Your task to perform on an android device: Go to display settings Image 0: 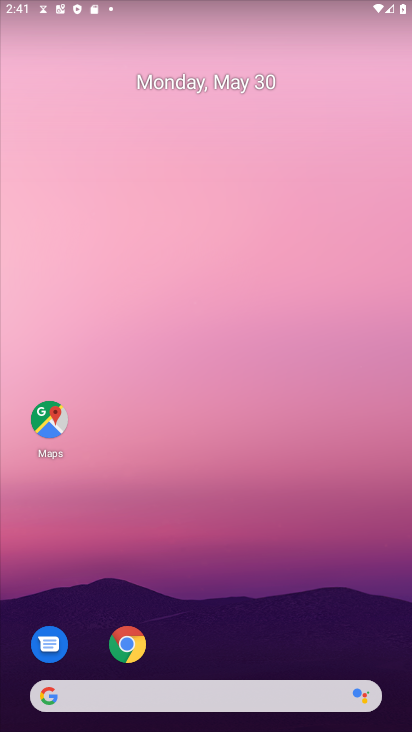
Step 0: drag from (257, 650) to (251, 211)
Your task to perform on an android device: Go to display settings Image 1: 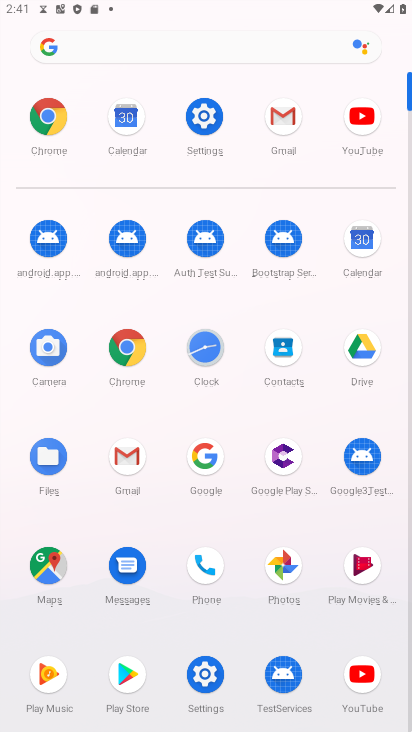
Step 1: click (211, 115)
Your task to perform on an android device: Go to display settings Image 2: 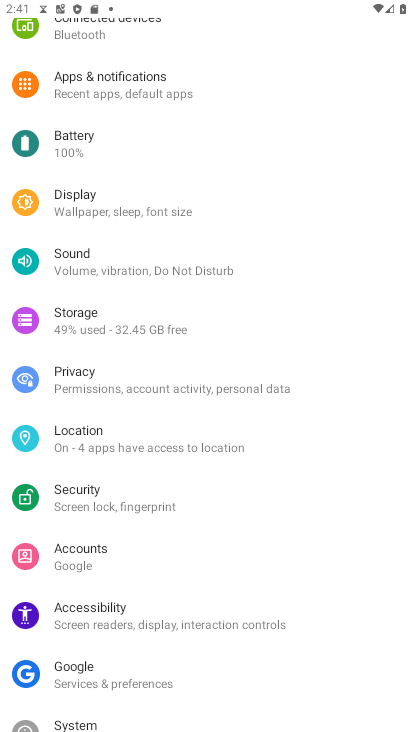
Step 2: click (106, 203)
Your task to perform on an android device: Go to display settings Image 3: 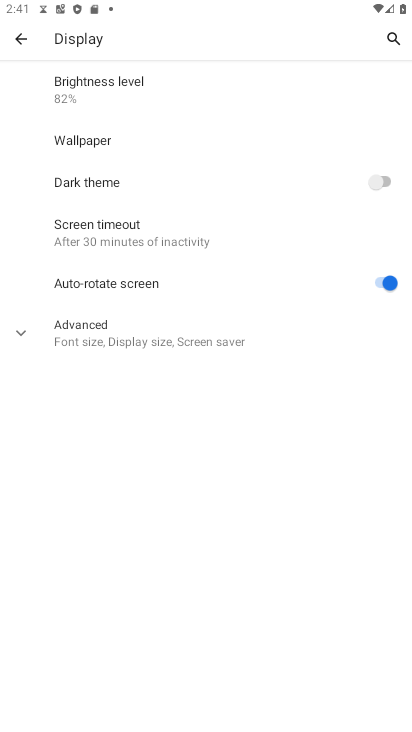
Step 3: task complete